Your task to perform on an android device: turn notification dots on Image 0: 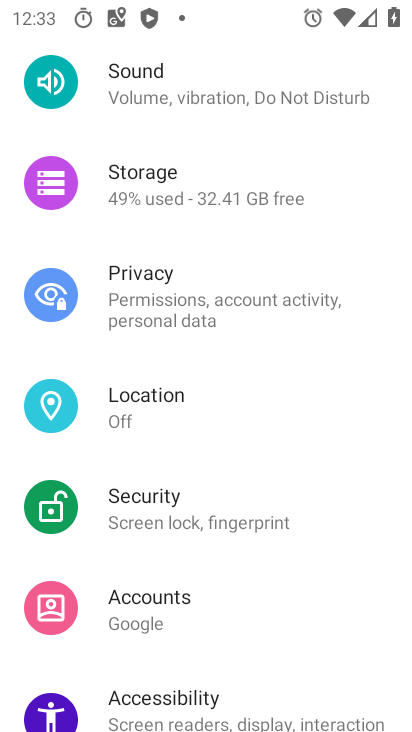
Step 0: drag from (255, 212) to (221, 637)
Your task to perform on an android device: turn notification dots on Image 1: 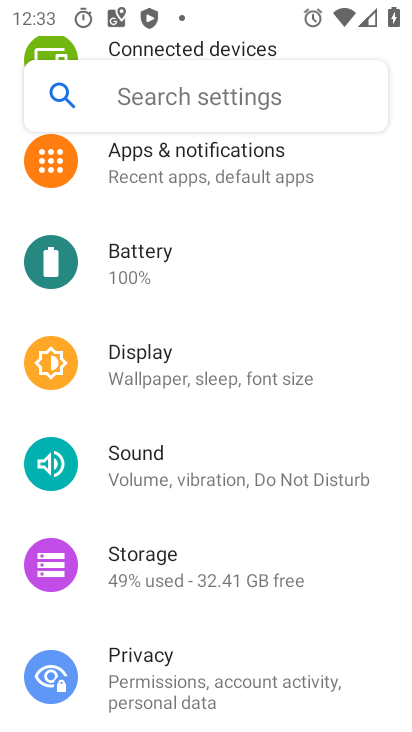
Step 1: click (226, 175)
Your task to perform on an android device: turn notification dots on Image 2: 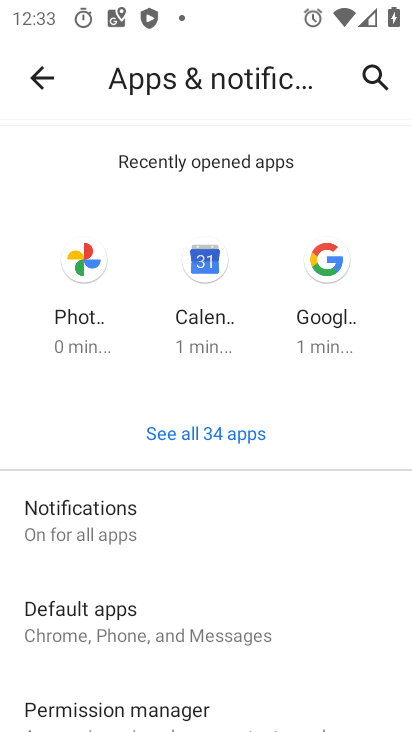
Step 2: drag from (201, 591) to (285, 180)
Your task to perform on an android device: turn notification dots on Image 3: 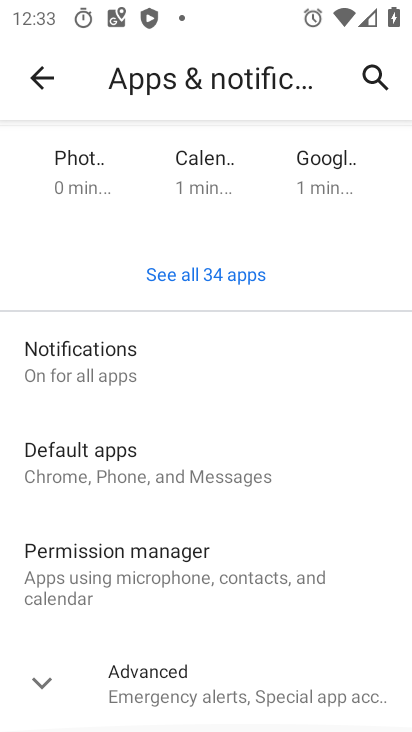
Step 3: click (102, 363)
Your task to perform on an android device: turn notification dots on Image 4: 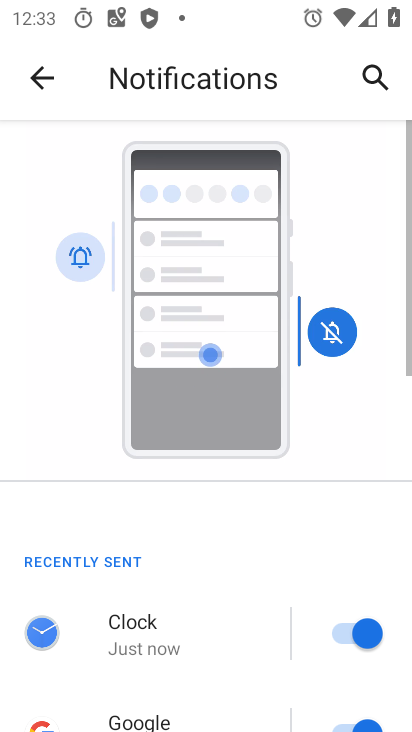
Step 4: drag from (267, 632) to (308, 194)
Your task to perform on an android device: turn notification dots on Image 5: 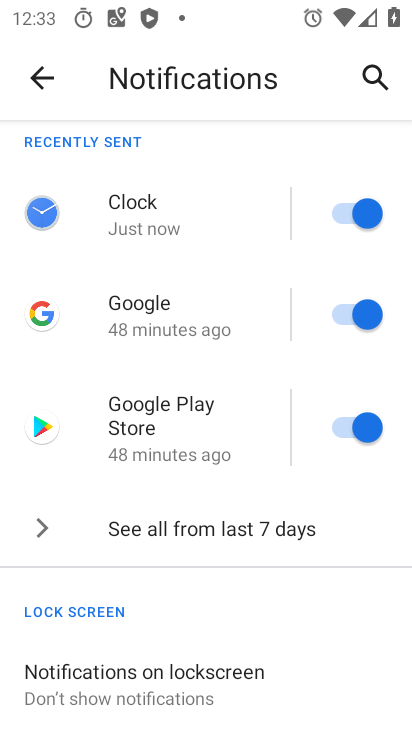
Step 5: drag from (152, 652) to (245, 260)
Your task to perform on an android device: turn notification dots on Image 6: 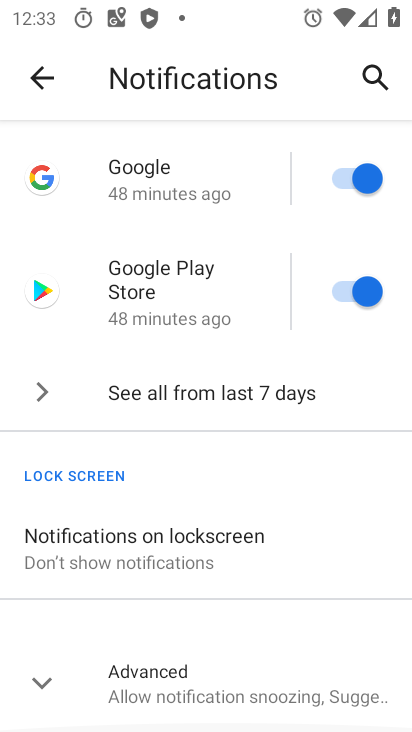
Step 6: click (188, 681)
Your task to perform on an android device: turn notification dots on Image 7: 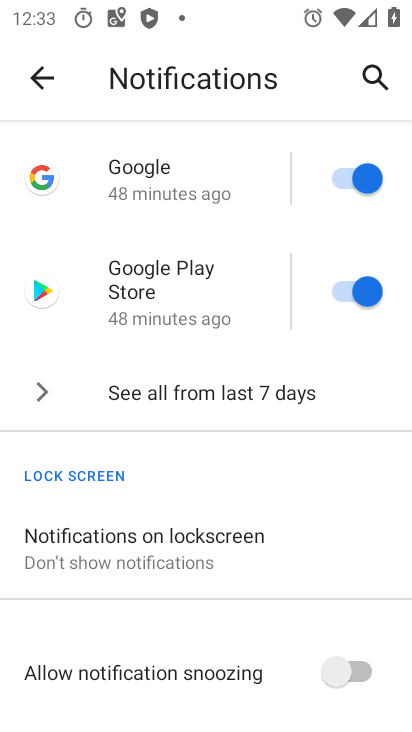
Step 7: drag from (147, 663) to (171, 247)
Your task to perform on an android device: turn notification dots on Image 8: 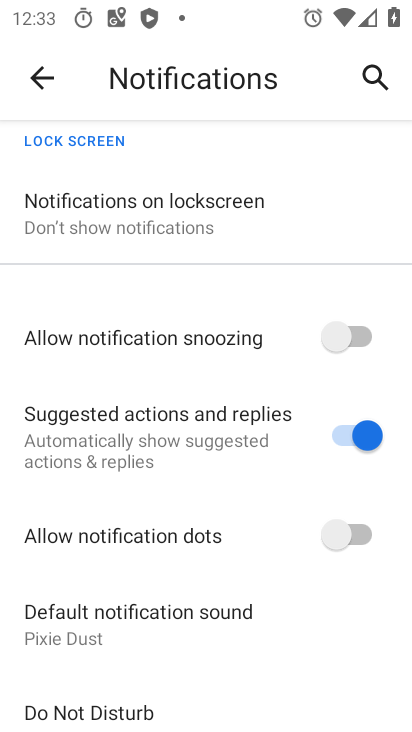
Step 8: click (338, 527)
Your task to perform on an android device: turn notification dots on Image 9: 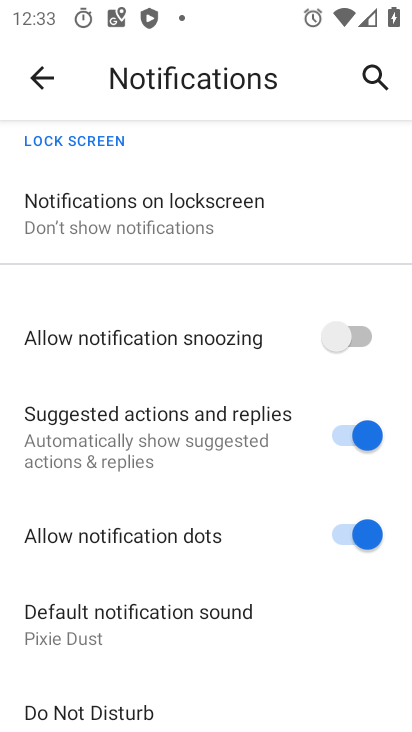
Step 9: task complete